Your task to perform on an android device: open app "WhatsApp Messenger" (install if not already installed) Image 0: 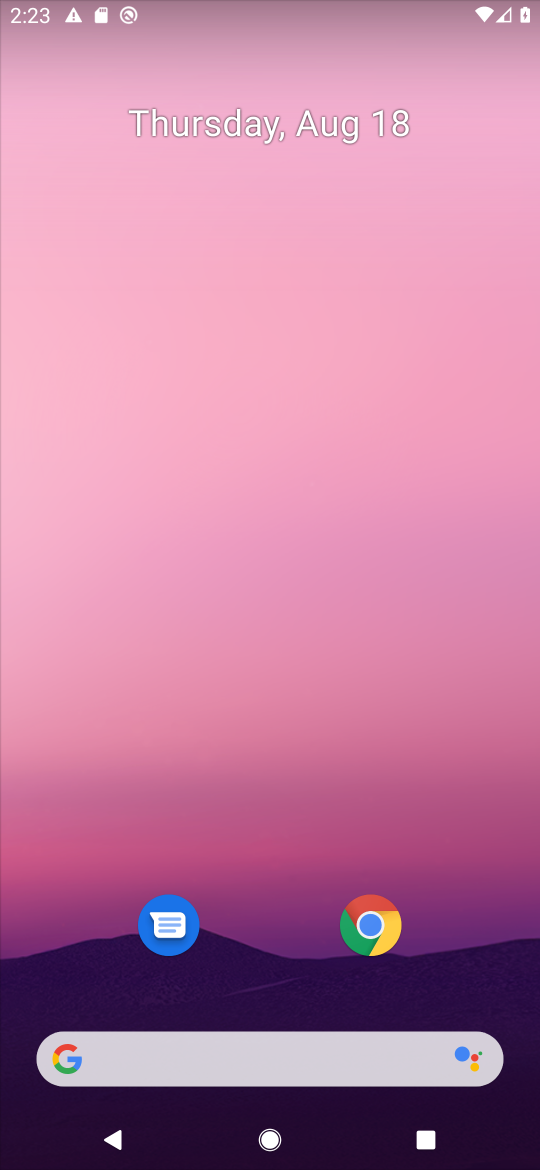
Step 0: drag from (241, 818) to (250, 13)
Your task to perform on an android device: open app "WhatsApp Messenger" (install if not already installed) Image 1: 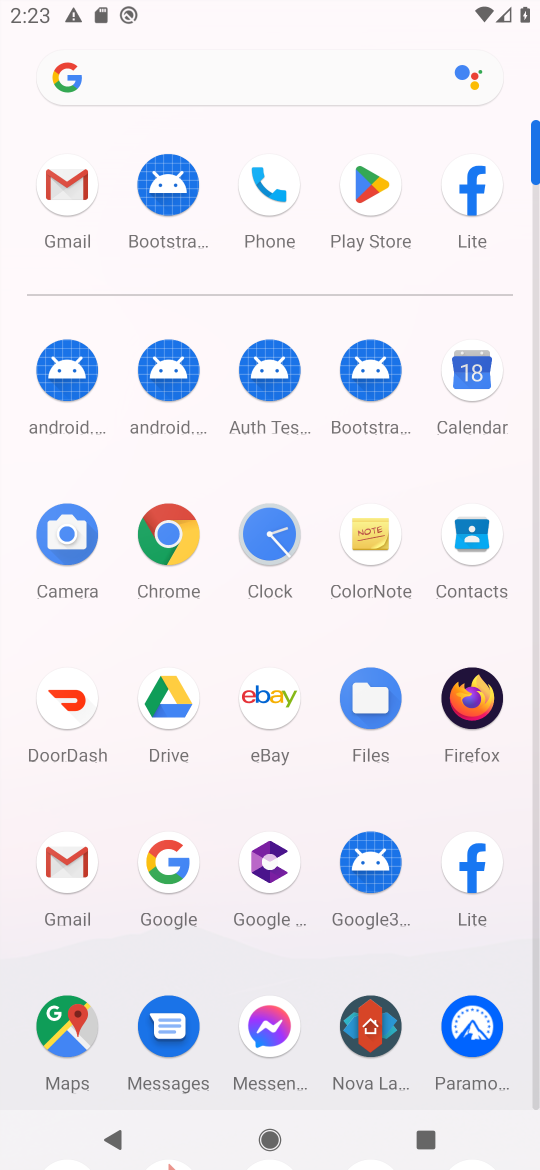
Step 1: click (375, 186)
Your task to perform on an android device: open app "WhatsApp Messenger" (install if not already installed) Image 2: 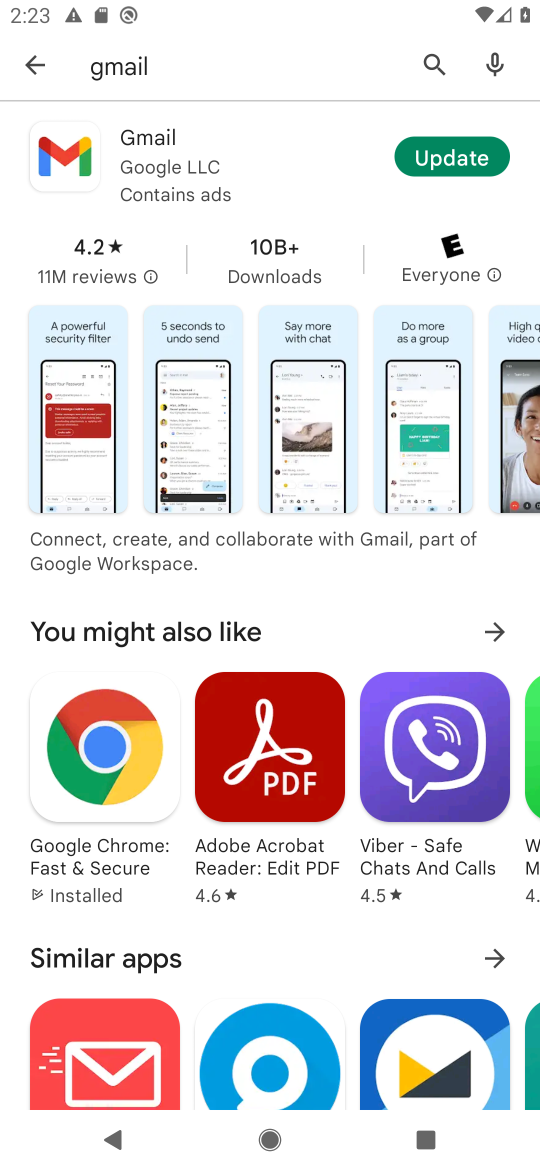
Step 2: click (39, 65)
Your task to perform on an android device: open app "WhatsApp Messenger" (install if not already installed) Image 3: 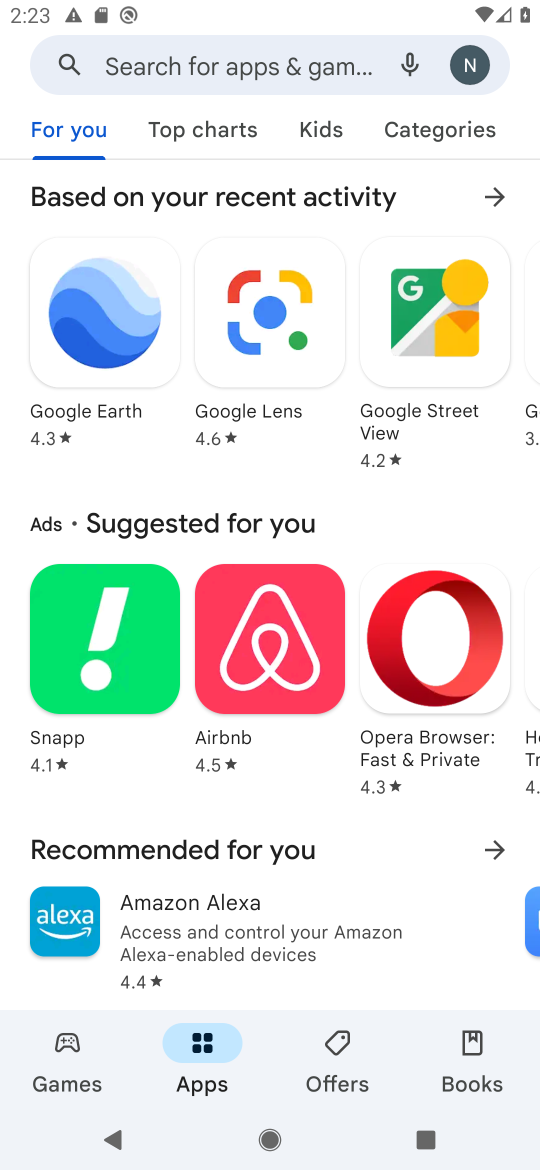
Step 3: click (228, 73)
Your task to perform on an android device: open app "WhatsApp Messenger" (install if not already installed) Image 4: 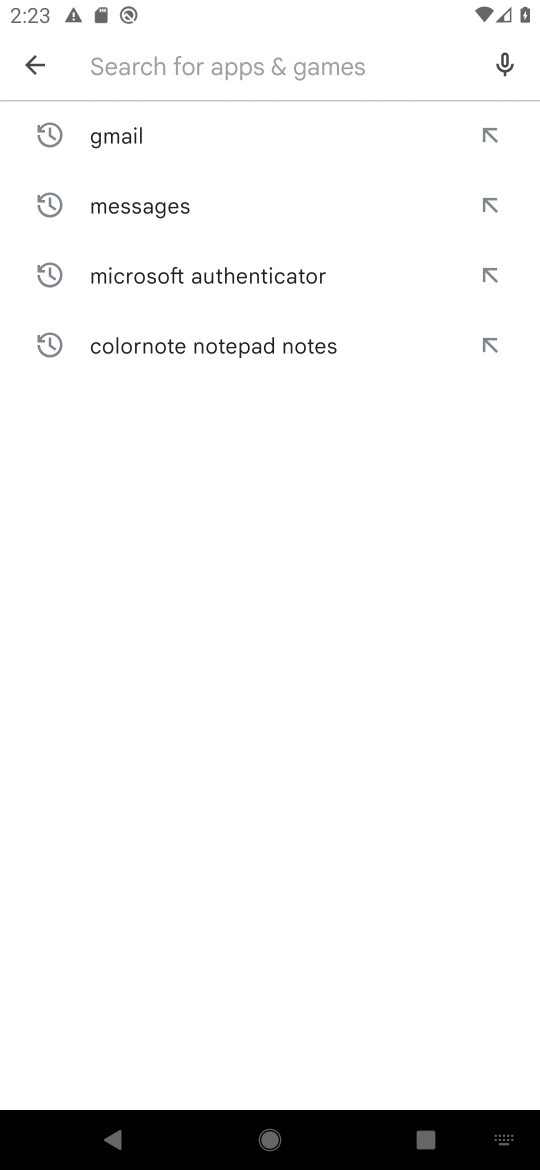
Step 4: type "WhatsApp Messenger"
Your task to perform on an android device: open app "WhatsApp Messenger" (install if not already installed) Image 5: 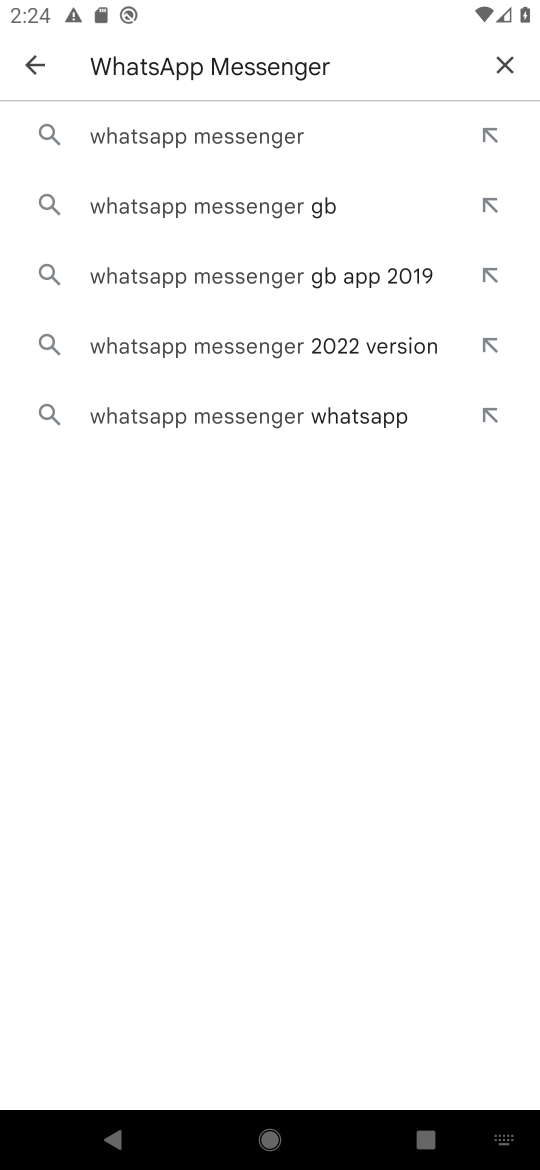
Step 5: click (268, 129)
Your task to perform on an android device: open app "WhatsApp Messenger" (install if not already installed) Image 6: 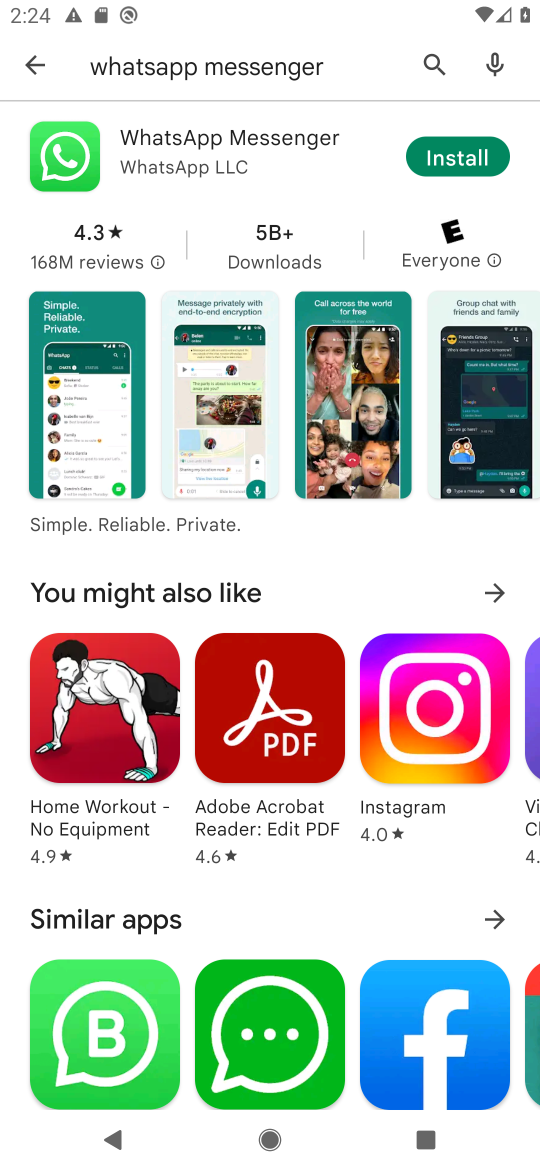
Step 6: click (441, 154)
Your task to perform on an android device: open app "WhatsApp Messenger" (install if not already installed) Image 7: 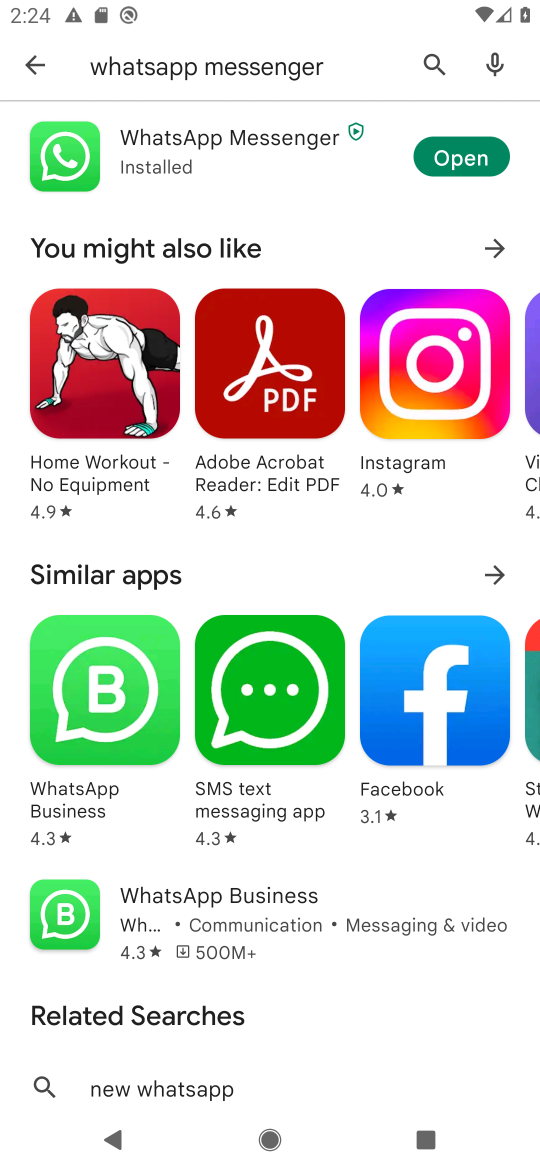
Step 7: click (464, 167)
Your task to perform on an android device: open app "WhatsApp Messenger" (install if not already installed) Image 8: 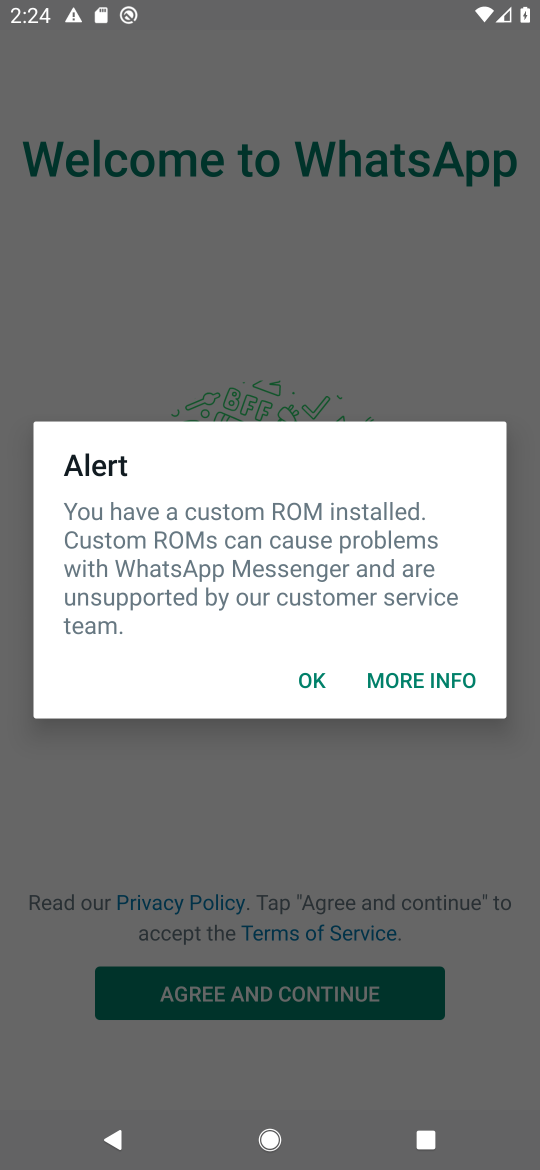
Step 8: task complete